Your task to perform on an android device: What's on my calendar tomorrow? Image 0: 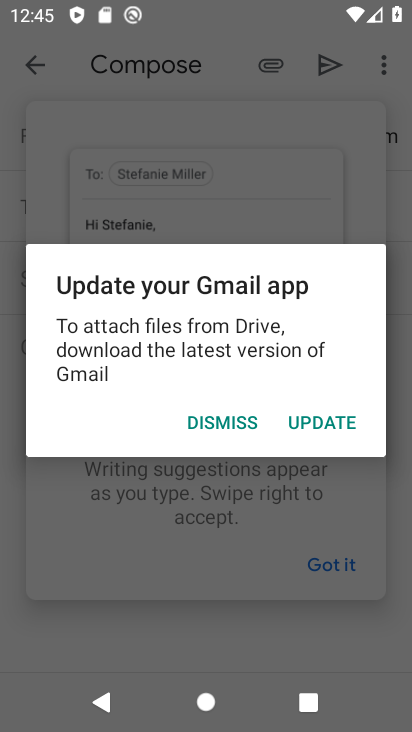
Step 0: press home button
Your task to perform on an android device: What's on my calendar tomorrow? Image 1: 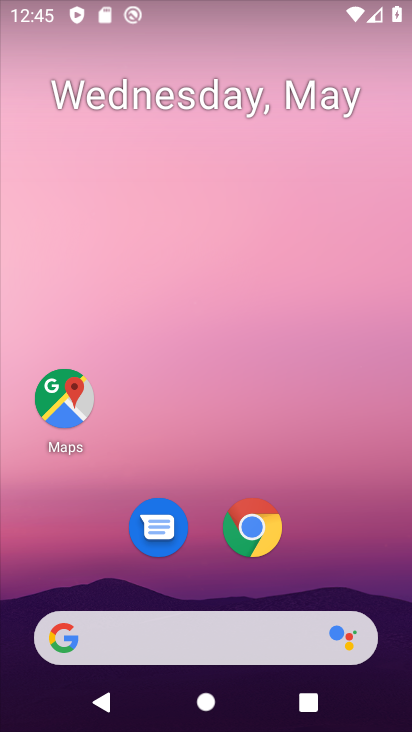
Step 1: drag from (219, 567) to (268, 116)
Your task to perform on an android device: What's on my calendar tomorrow? Image 2: 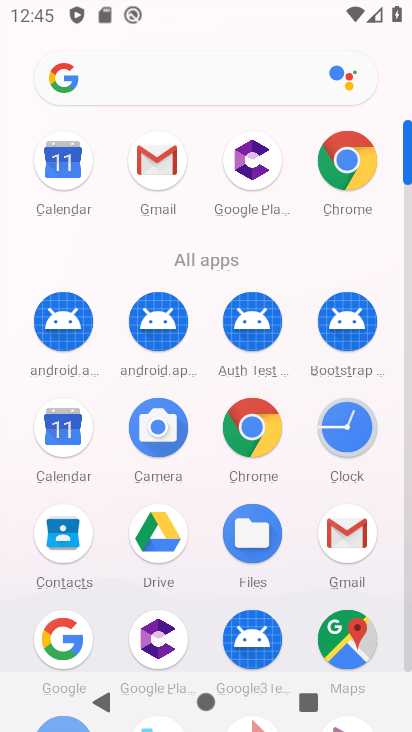
Step 2: click (64, 420)
Your task to perform on an android device: What's on my calendar tomorrow? Image 3: 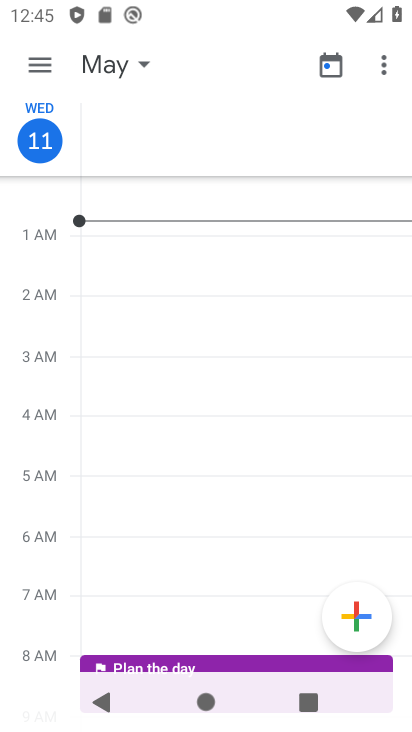
Step 3: click (40, 151)
Your task to perform on an android device: What's on my calendar tomorrow? Image 4: 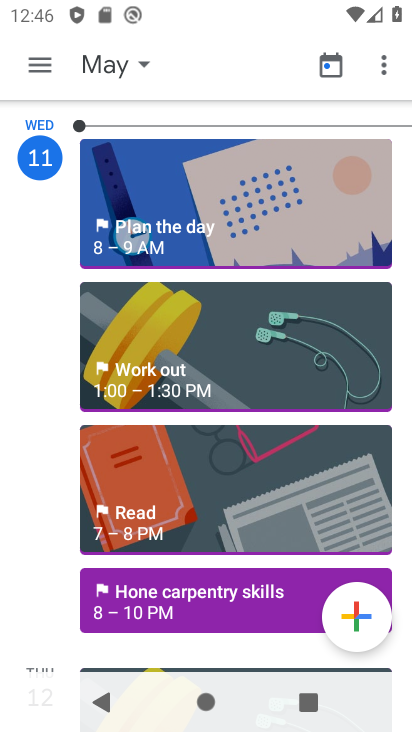
Step 4: drag from (124, 600) to (160, 306)
Your task to perform on an android device: What's on my calendar tomorrow? Image 5: 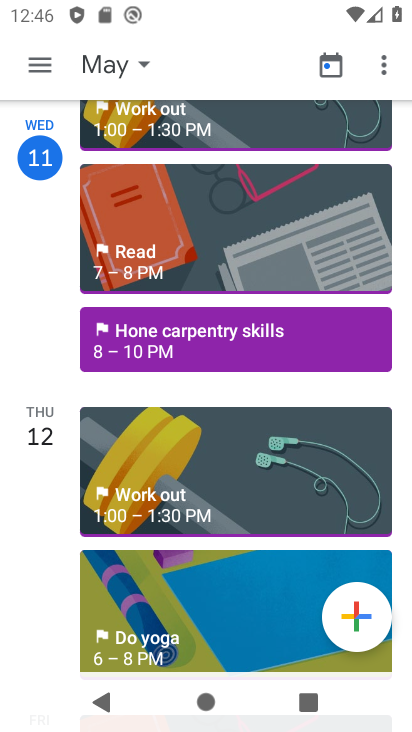
Step 5: click (29, 435)
Your task to perform on an android device: What's on my calendar tomorrow? Image 6: 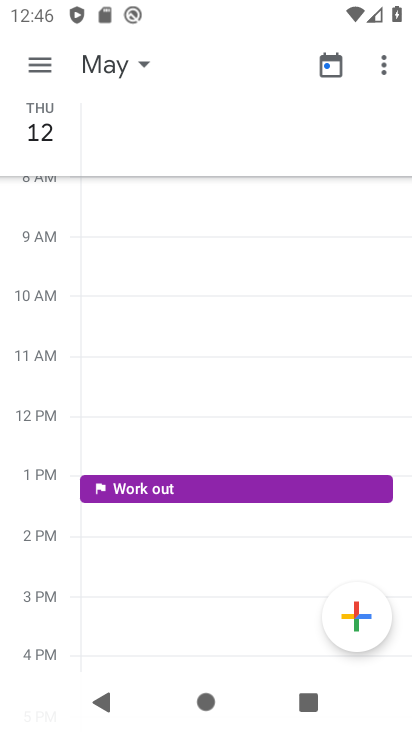
Step 6: task complete